Your task to perform on an android device: Go to sound settings Image 0: 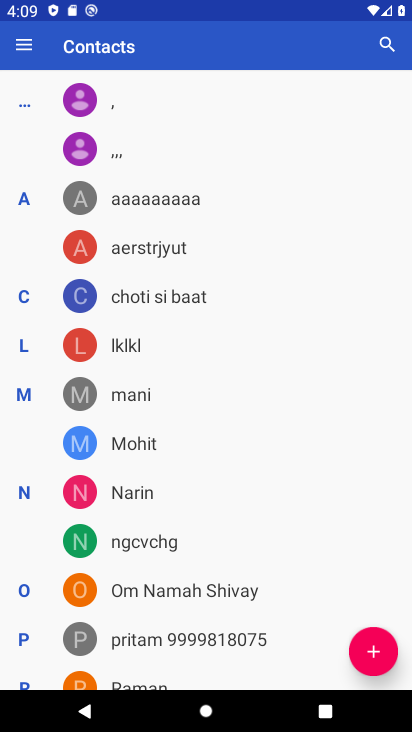
Step 0: press home button
Your task to perform on an android device: Go to sound settings Image 1: 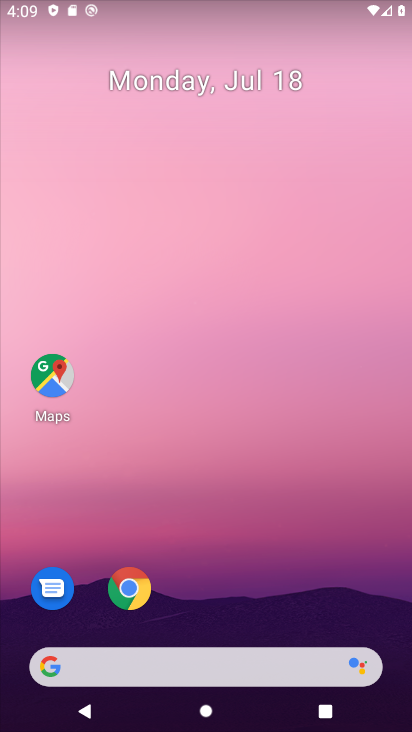
Step 1: drag from (193, 557) to (285, 199)
Your task to perform on an android device: Go to sound settings Image 2: 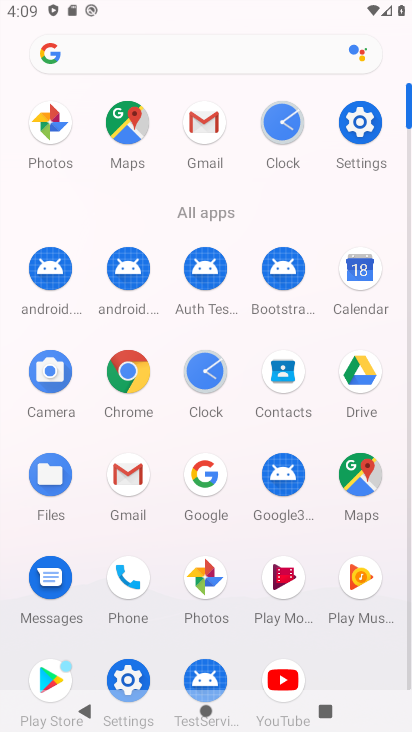
Step 2: click (129, 675)
Your task to perform on an android device: Go to sound settings Image 3: 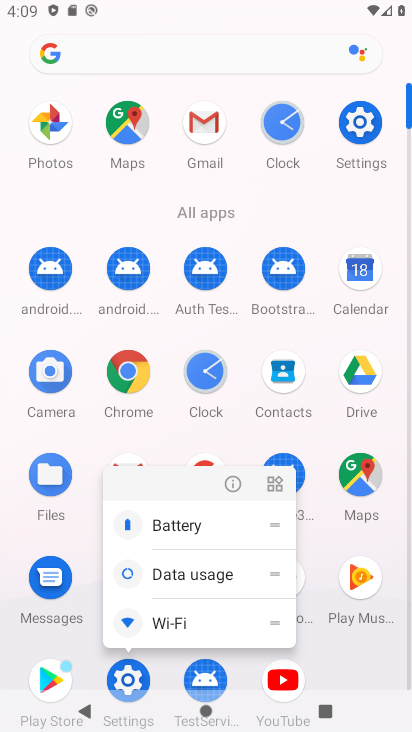
Step 3: click (128, 683)
Your task to perform on an android device: Go to sound settings Image 4: 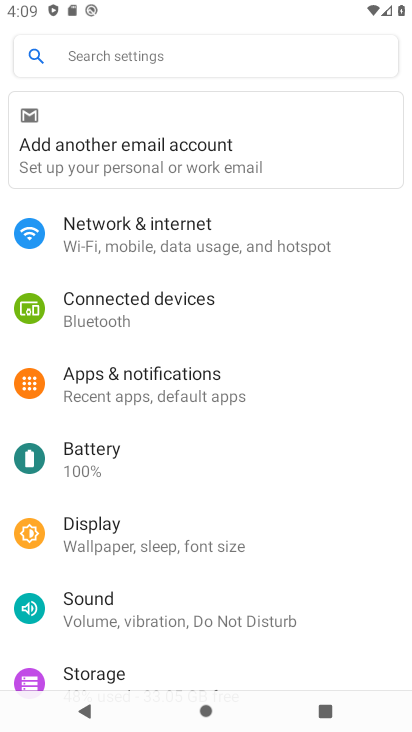
Step 4: click (115, 603)
Your task to perform on an android device: Go to sound settings Image 5: 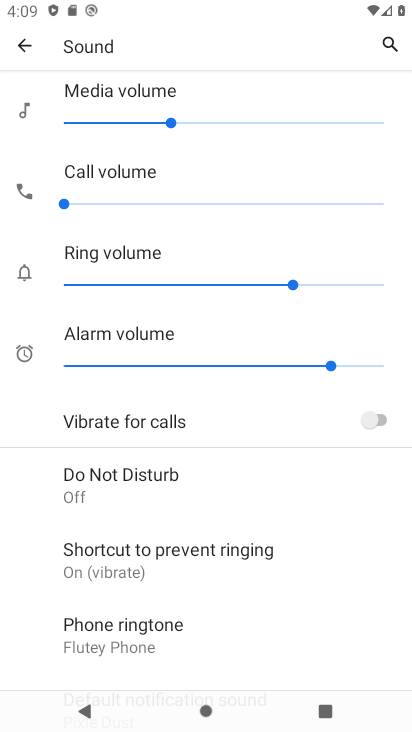
Step 5: task complete